Your task to perform on an android device: Go to battery settings Image 0: 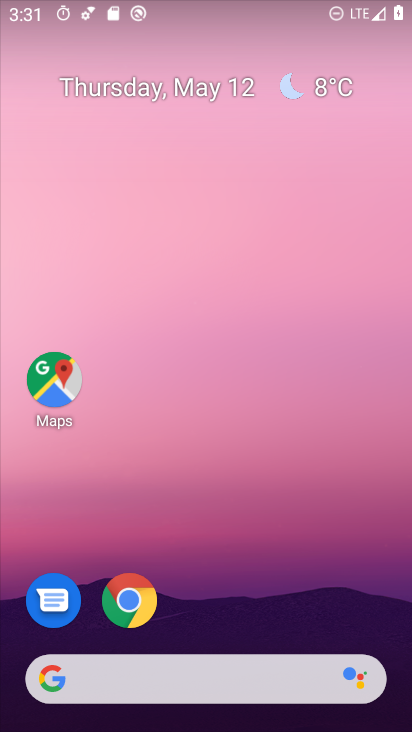
Step 0: drag from (176, 720) to (183, 315)
Your task to perform on an android device: Go to battery settings Image 1: 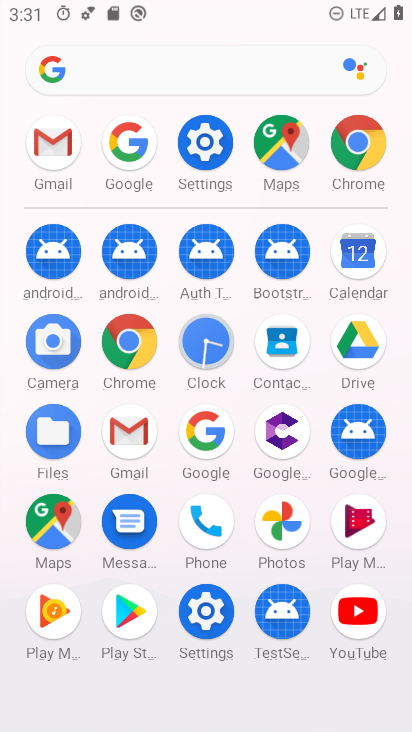
Step 1: click (204, 145)
Your task to perform on an android device: Go to battery settings Image 2: 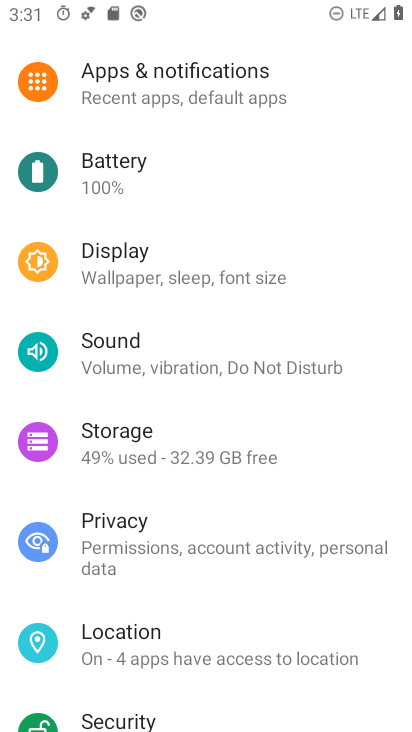
Step 2: click (109, 179)
Your task to perform on an android device: Go to battery settings Image 3: 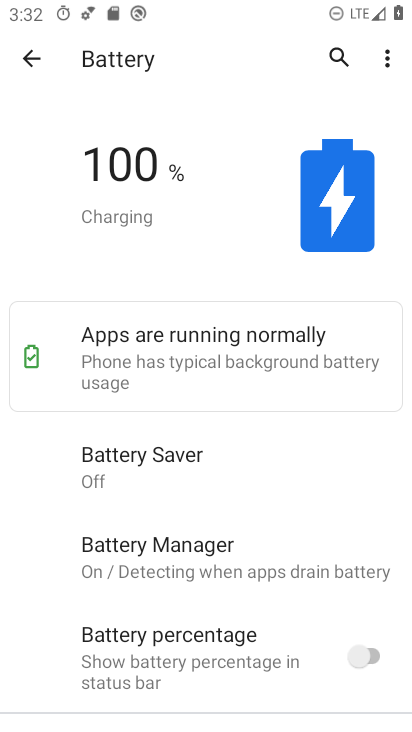
Step 3: task complete